Your task to perform on an android device: open wifi settings Image 0: 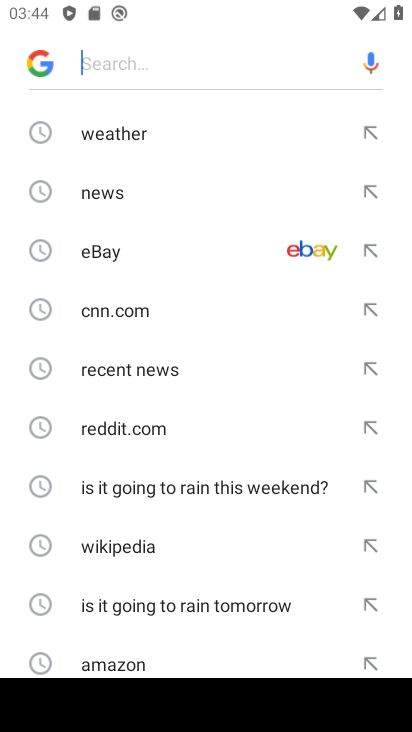
Step 0: press home button
Your task to perform on an android device: open wifi settings Image 1: 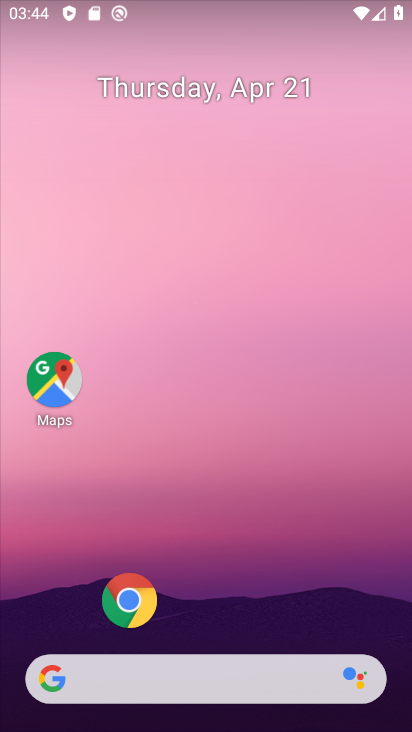
Step 1: drag from (238, 504) to (306, 83)
Your task to perform on an android device: open wifi settings Image 2: 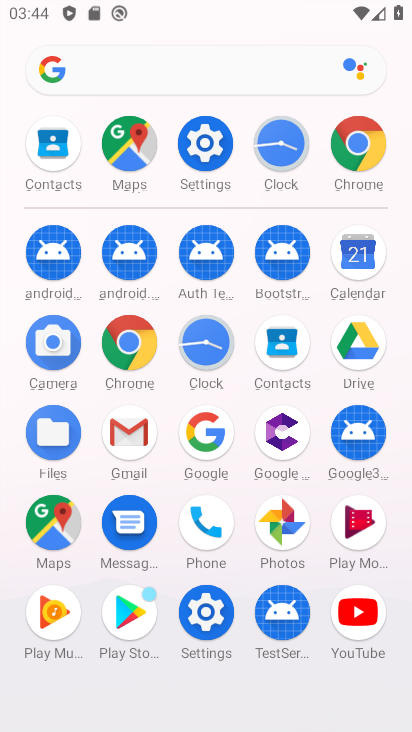
Step 2: click (195, 151)
Your task to perform on an android device: open wifi settings Image 3: 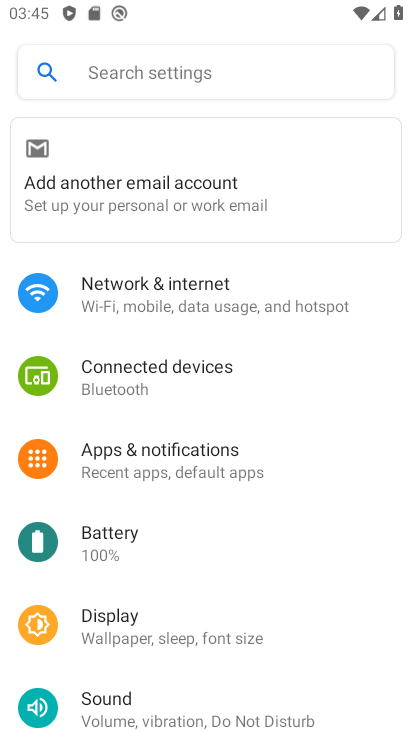
Step 3: click (185, 292)
Your task to perform on an android device: open wifi settings Image 4: 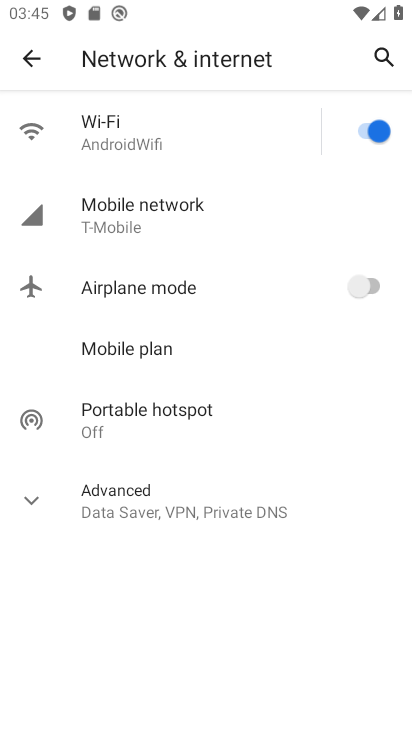
Step 4: click (152, 143)
Your task to perform on an android device: open wifi settings Image 5: 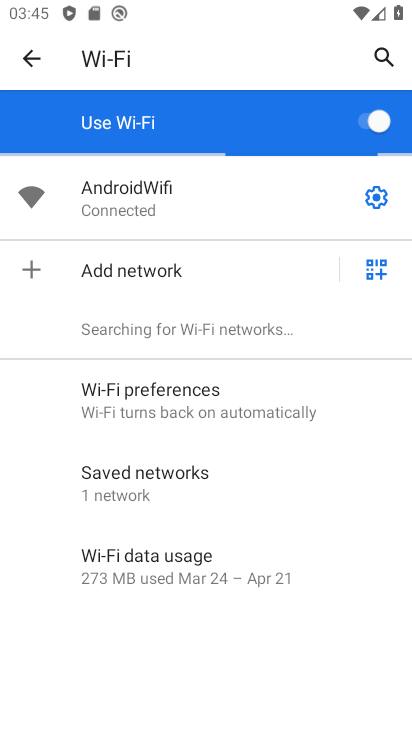
Step 5: click (366, 207)
Your task to perform on an android device: open wifi settings Image 6: 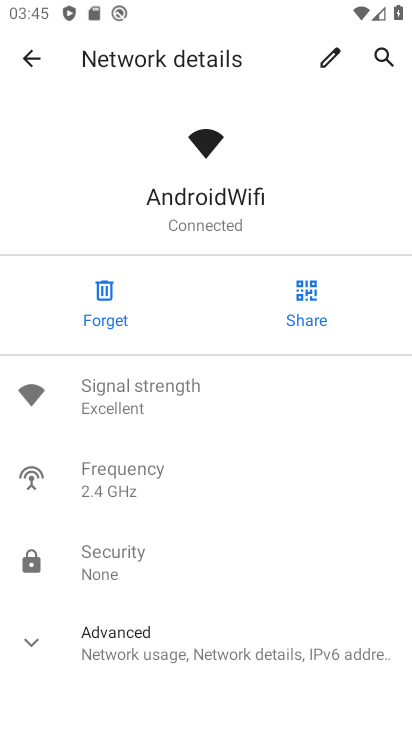
Step 6: task complete